Your task to perform on an android device: Open Google Image 0: 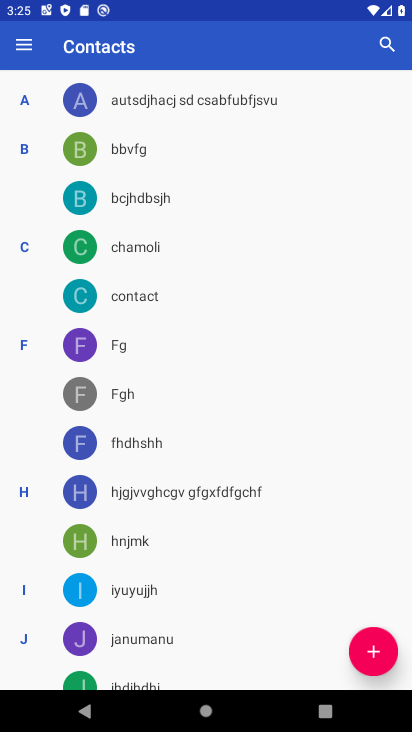
Step 0: press home button
Your task to perform on an android device: Open Google Image 1: 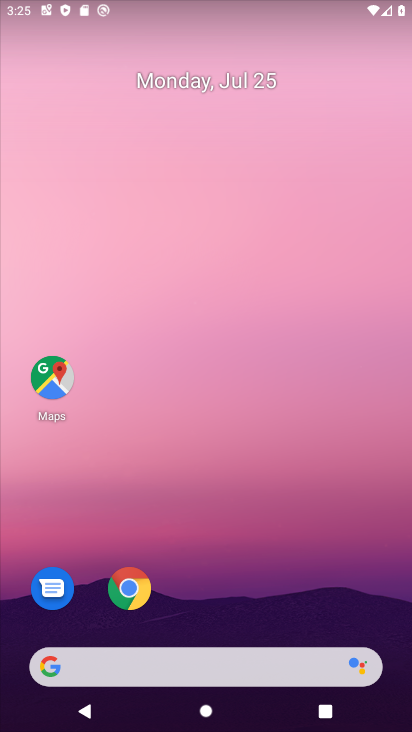
Step 1: drag from (336, 595) to (334, 55)
Your task to perform on an android device: Open Google Image 2: 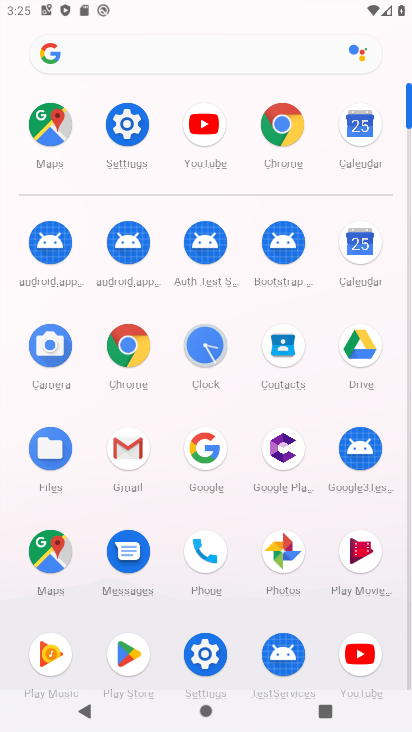
Step 2: click (207, 442)
Your task to perform on an android device: Open Google Image 3: 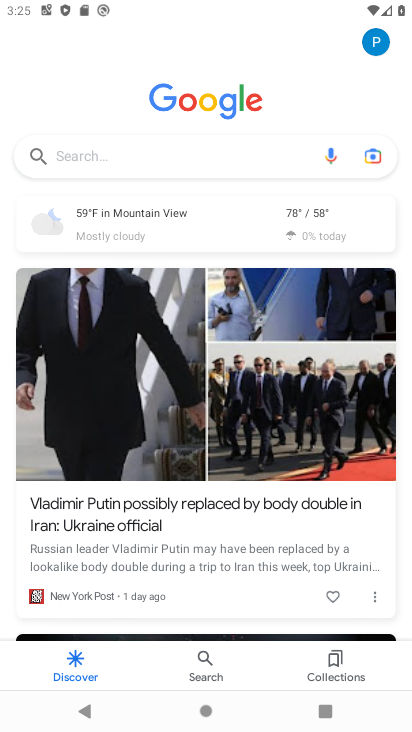
Step 3: task complete